Your task to perform on an android device: Open maps Image 0: 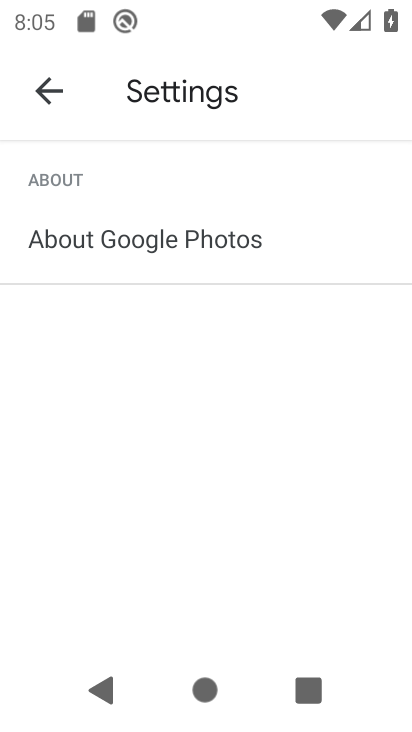
Step 0: press home button
Your task to perform on an android device: Open maps Image 1: 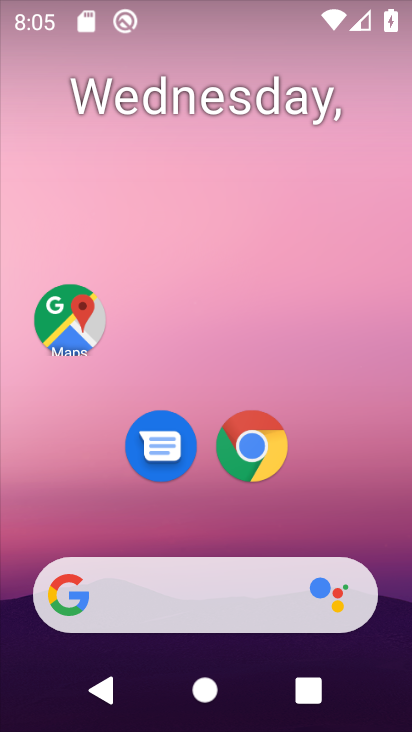
Step 1: click (56, 315)
Your task to perform on an android device: Open maps Image 2: 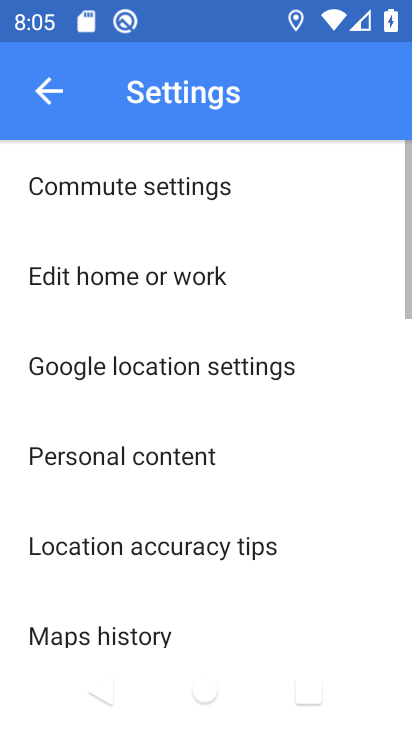
Step 2: click (39, 93)
Your task to perform on an android device: Open maps Image 3: 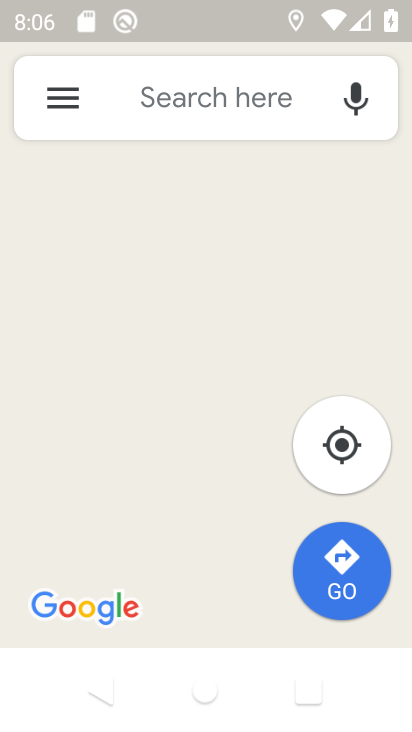
Step 3: task complete